Your task to perform on an android device: open app "HBO Max: Stream TV & Movies" (install if not already installed) Image 0: 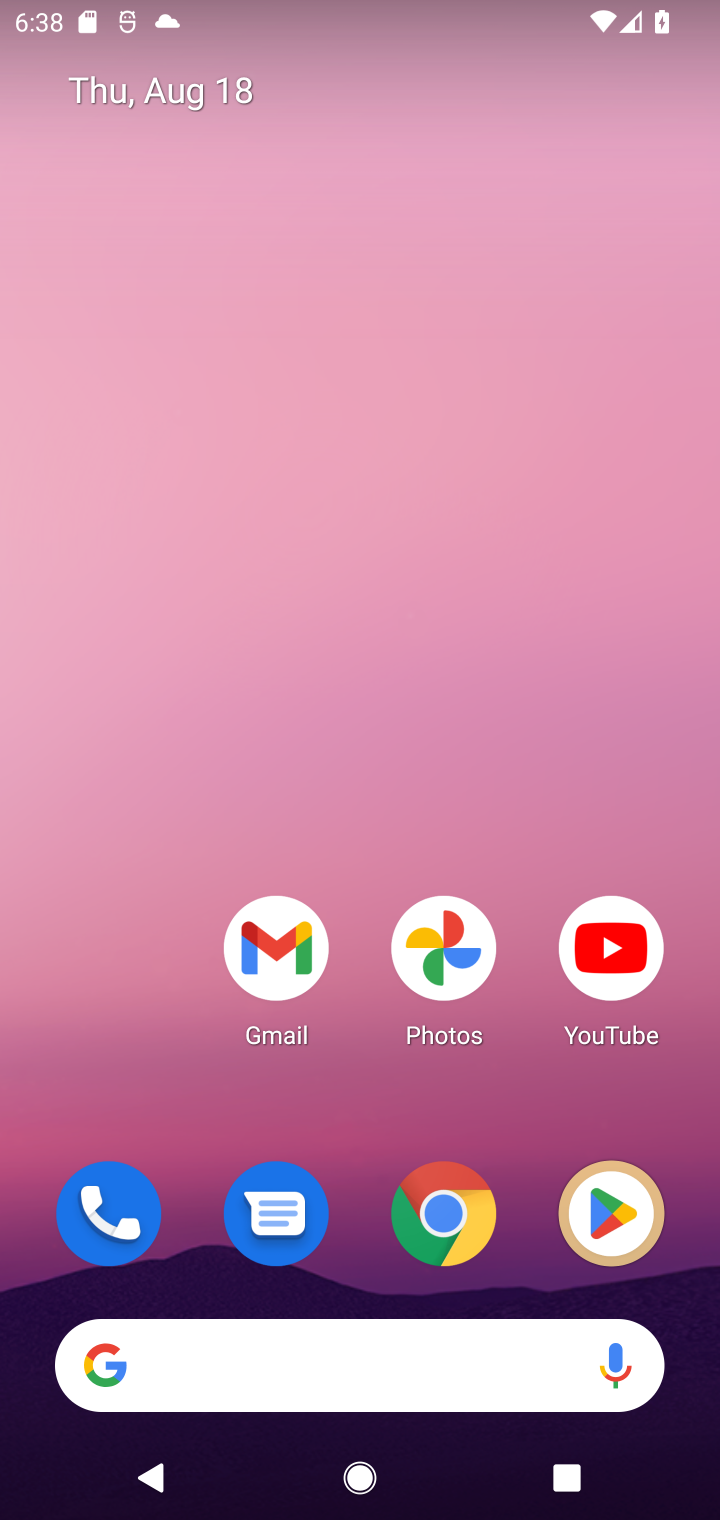
Step 0: press home button
Your task to perform on an android device: open app "HBO Max: Stream TV & Movies" (install if not already installed) Image 1: 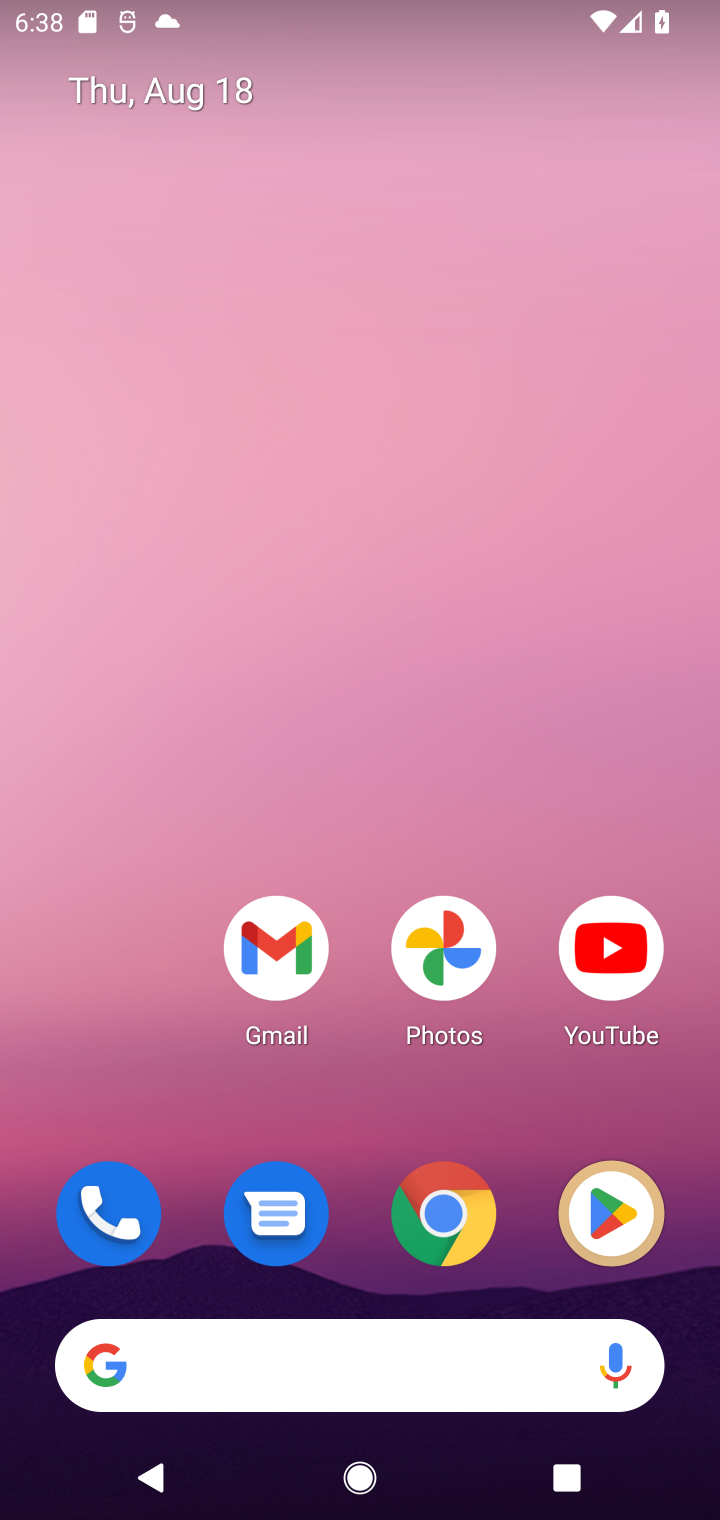
Step 1: drag from (347, 1153) to (389, 174)
Your task to perform on an android device: open app "HBO Max: Stream TV & Movies" (install if not already installed) Image 2: 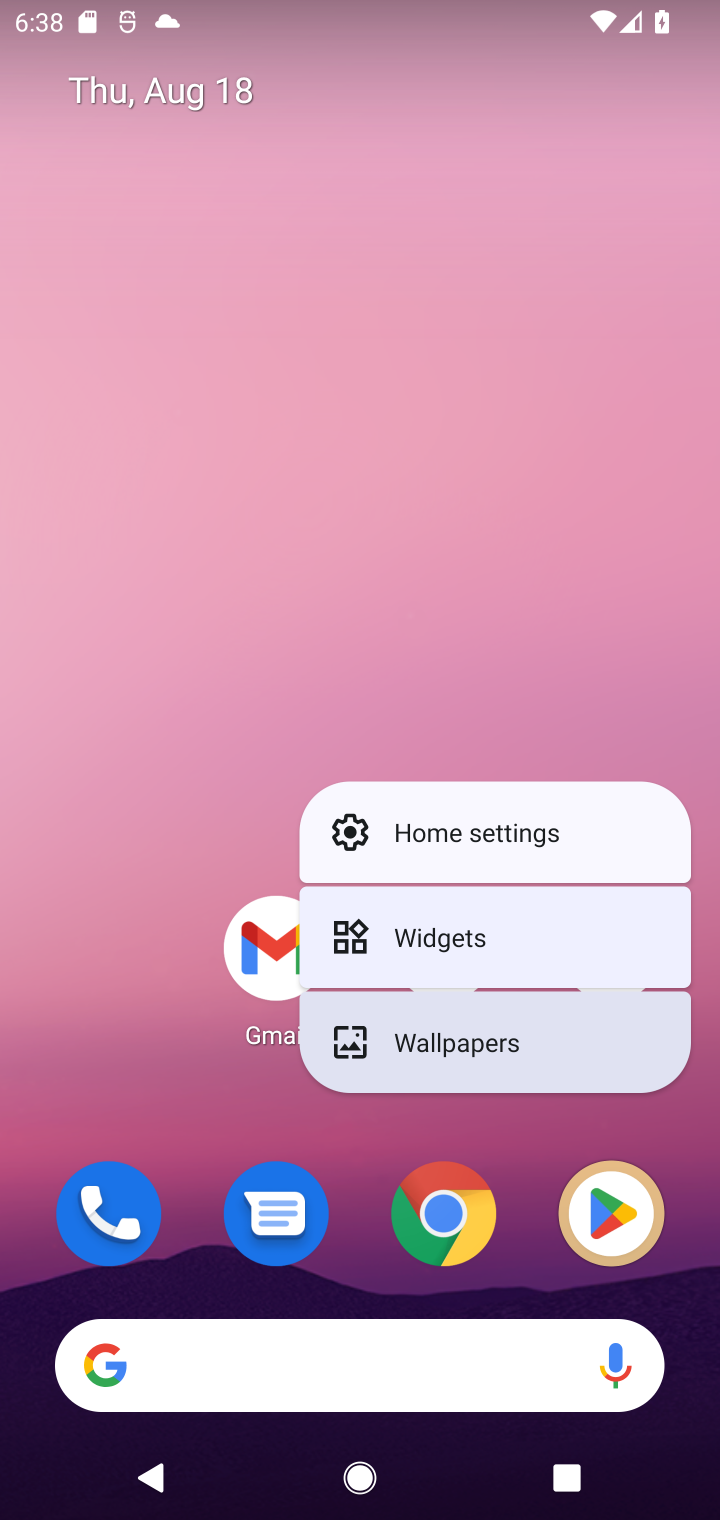
Step 2: drag from (17, 1075) to (295, 58)
Your task to perform on an android device: open app "HBO Max: Stream TV & Movies" (install if not already installed) Image 3: 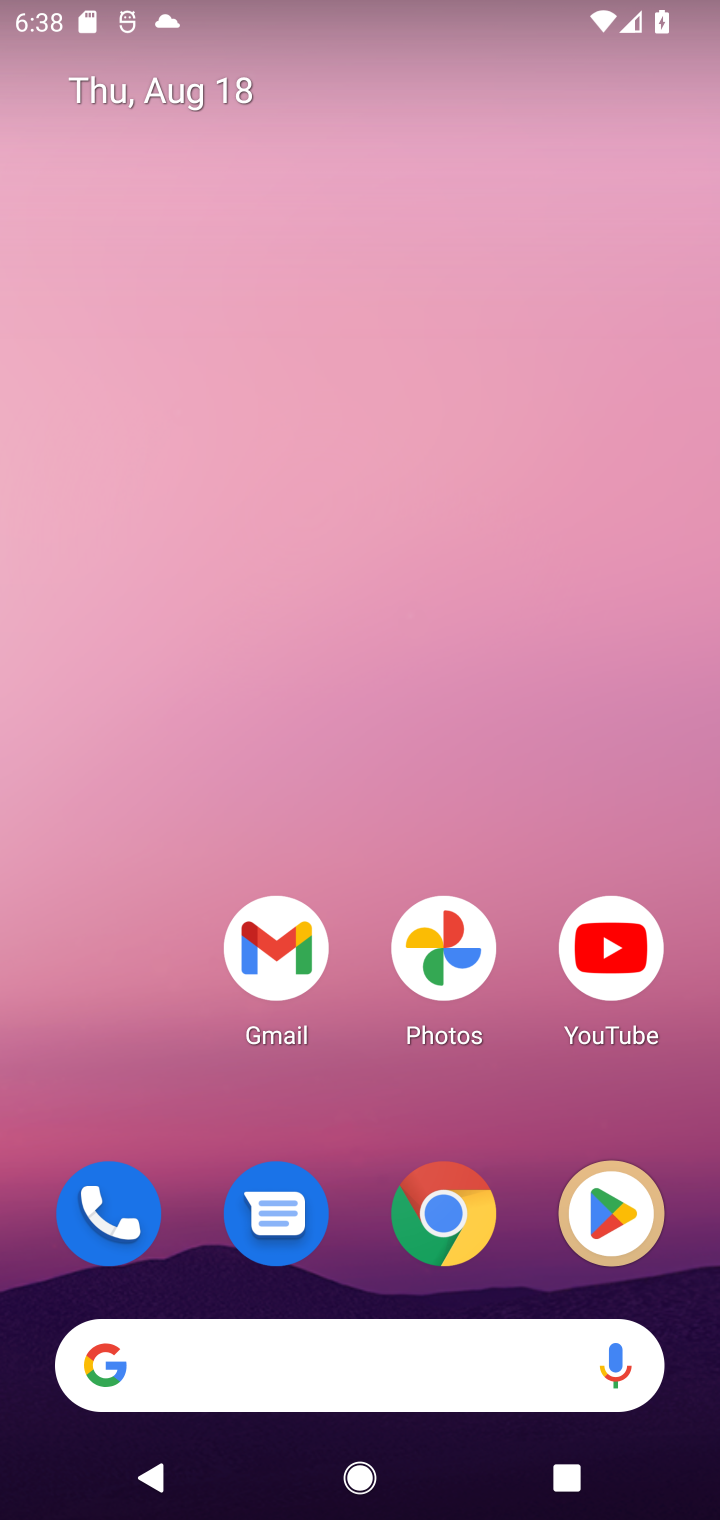
Step 3: drag from (369, 1148) to (382, 0)
Your task to perform on an android device: open app "HBO Max: Stream TV & Movies" (install if not already installed) Image 4: 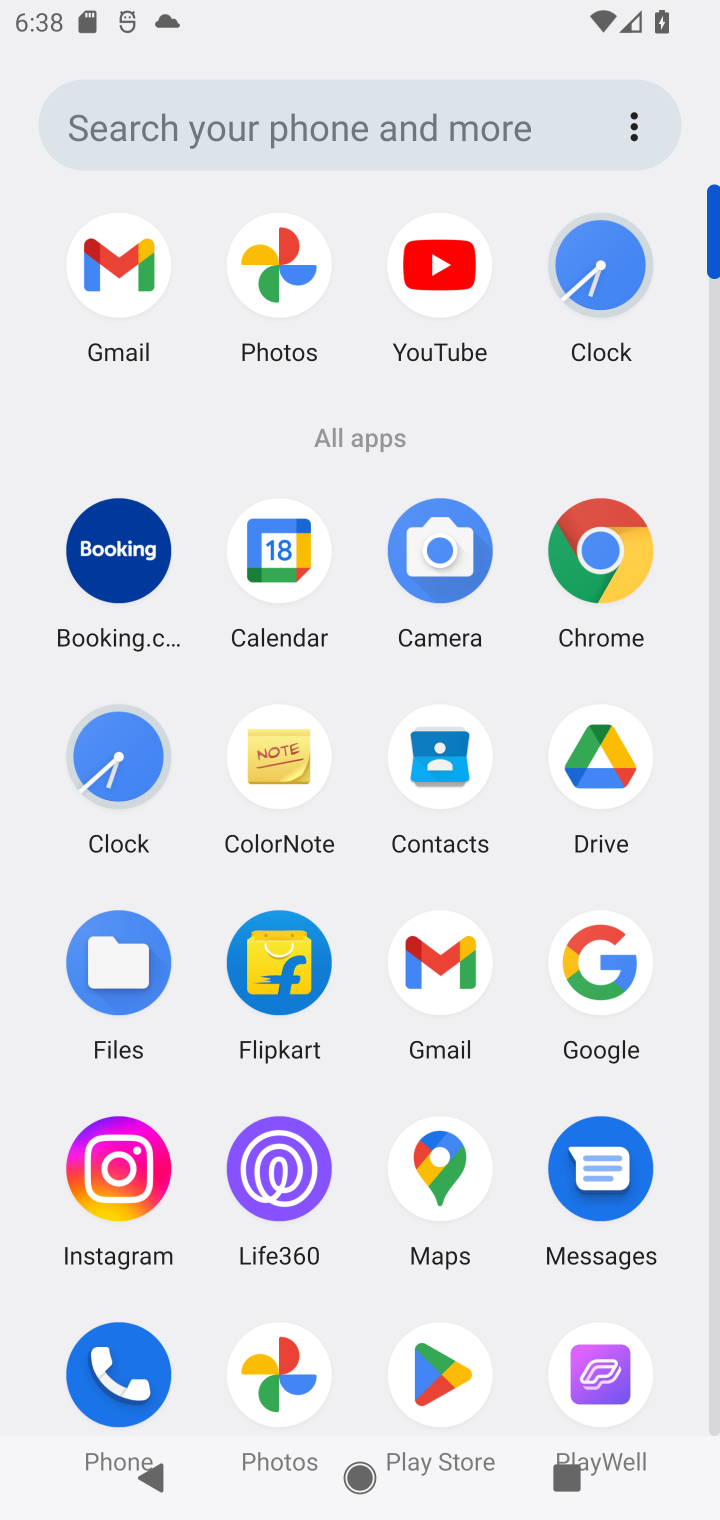
Step 4: click (401, 1363)
Your task to perform on an android device: open app "HBO Max: Stream TV & Movies" (install if not already installed) Image 5: 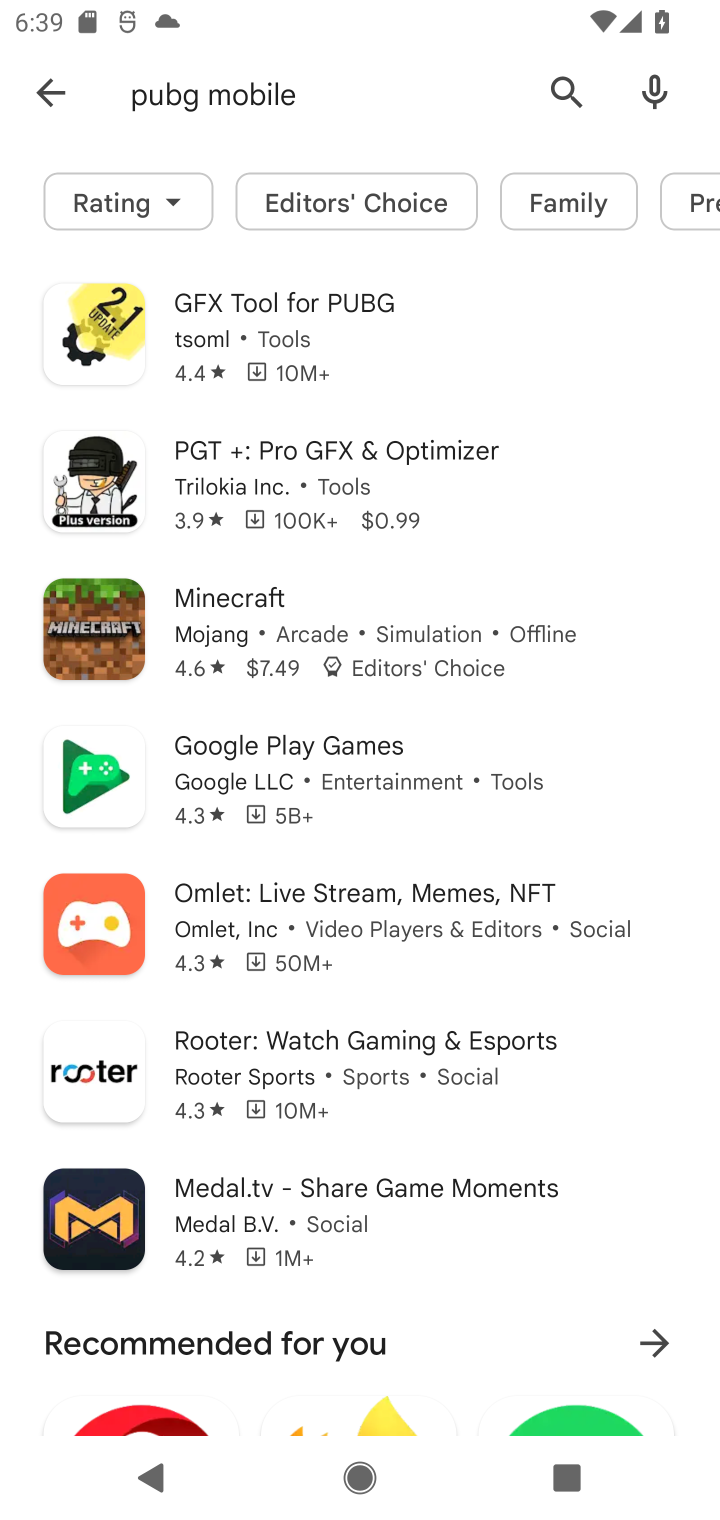
Step 5: click (550, 96)
Your task to perform on an android device: open app "HBO Max: Stream TV & Movies" (install if not already installed) Image 6: 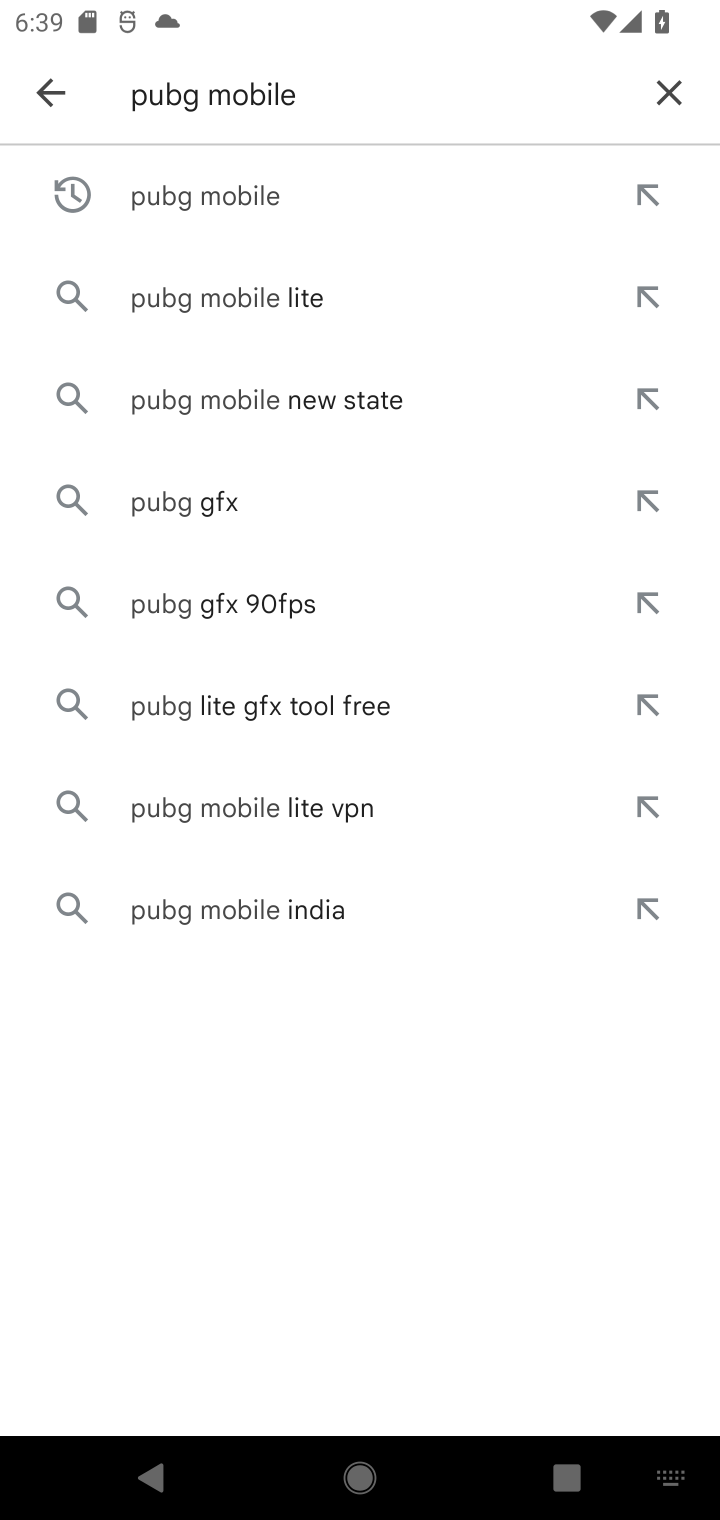
Step 6: click (660, 101)
Your task to perform on an android device: open app "HBO Max: Stream TV & Movies" (install if not already installed) Image 7: 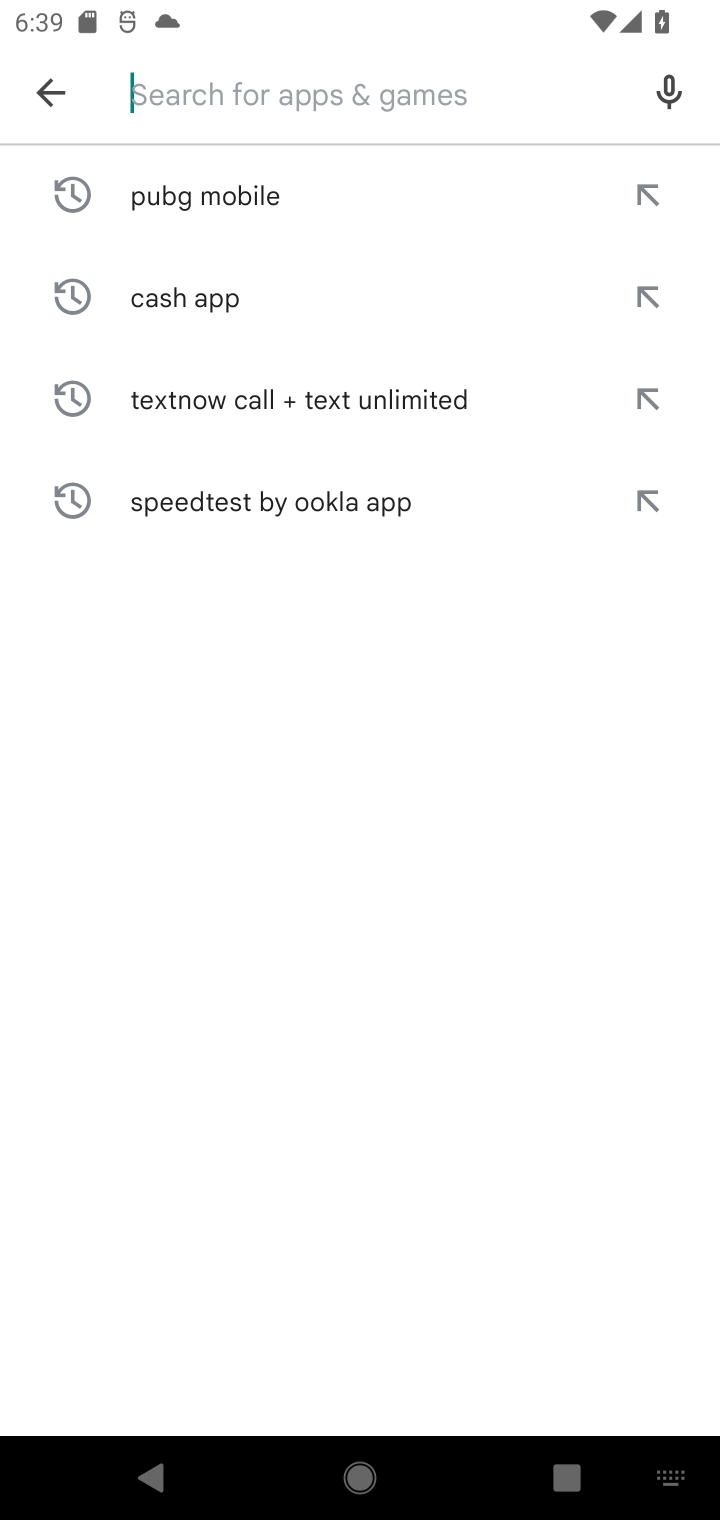
Step 7: type "HBO Max: Stream TV & Movies"
Your task to perform on an android device: open app "HBO Max: Stream TV & Movies" (install if not already installed) Image 8: 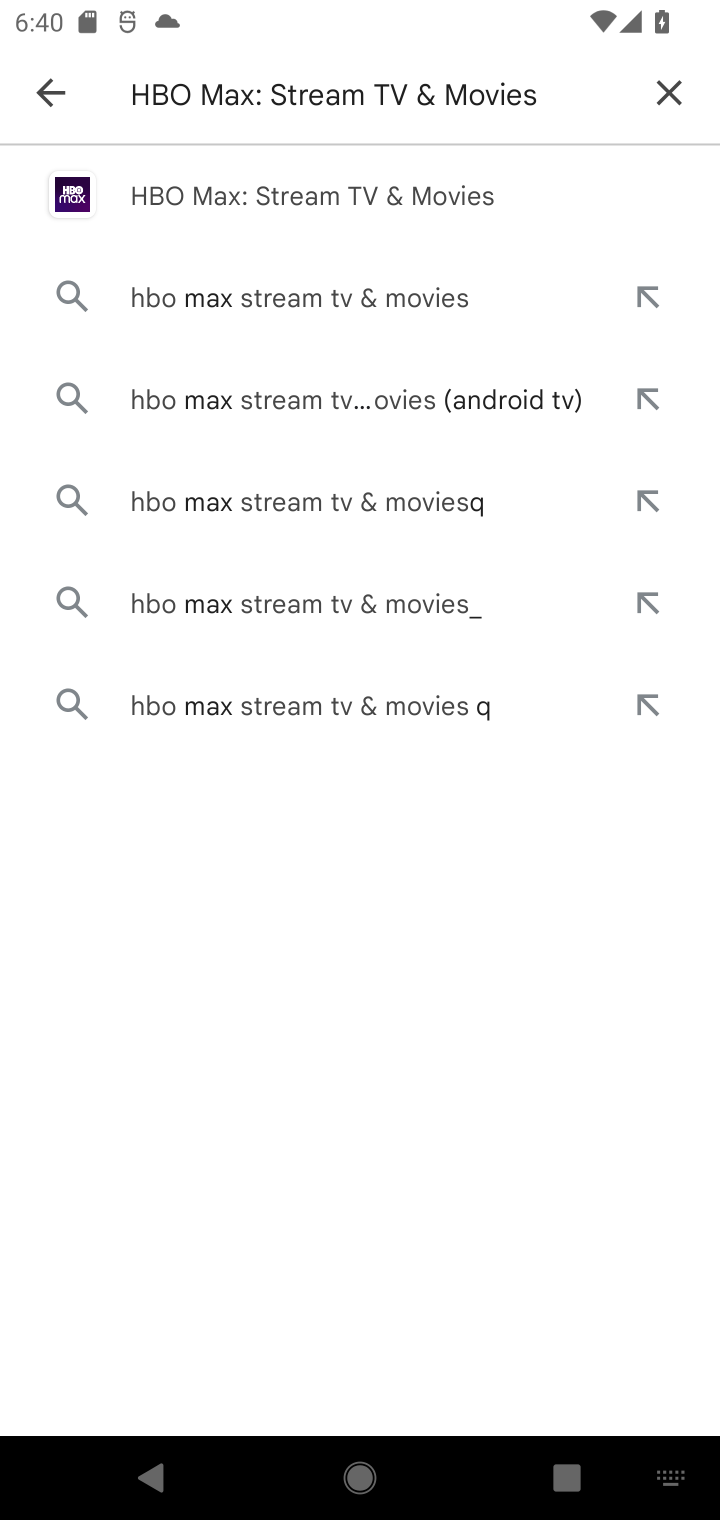
Step 8: click (157, 175)
Your task to perform on an android device: open app "HBO Max: Stream TV & Movies" (install if not already installed) Image 9: 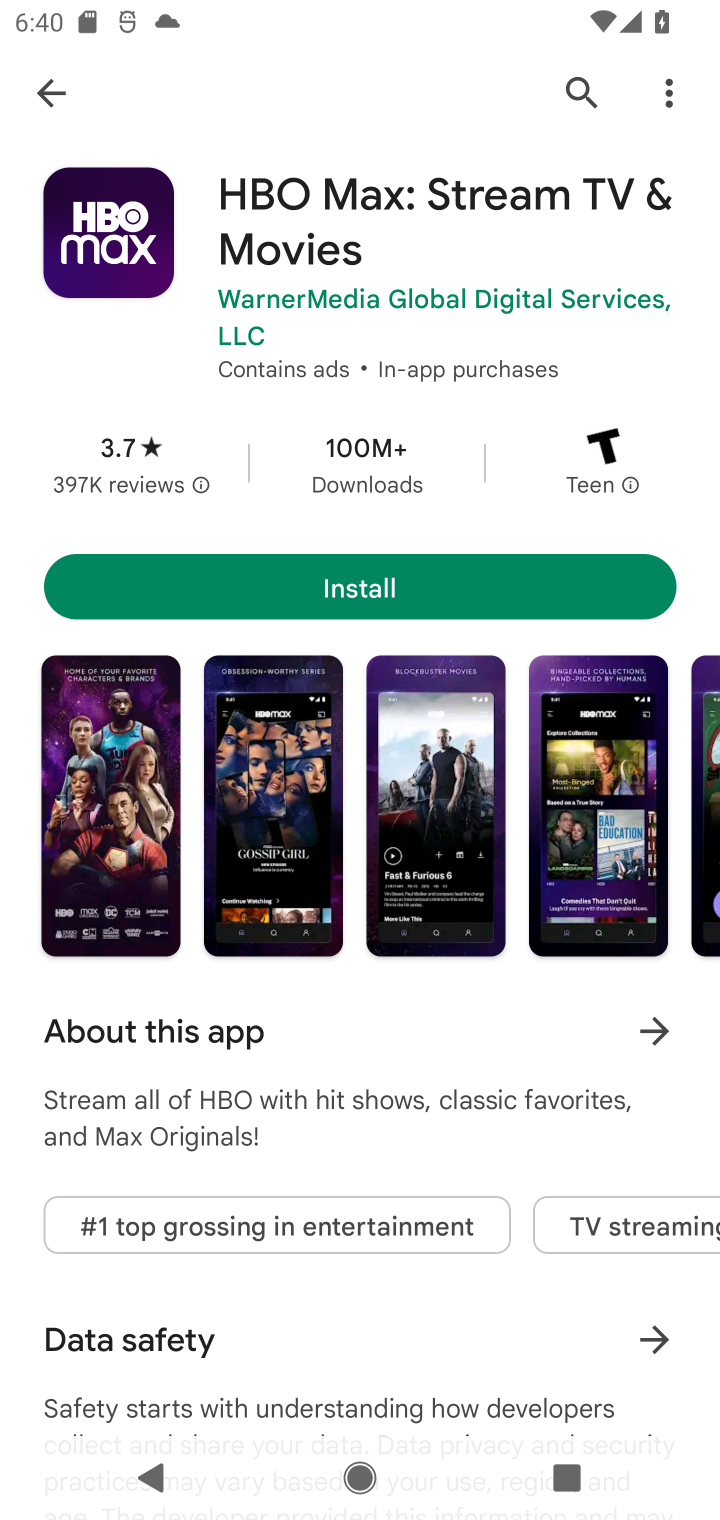
Step 9: click (378, 594)
Your task to perform on an android device: open app "HBO Max: Stream TV & Movies" (install if not already installed) Image 10: 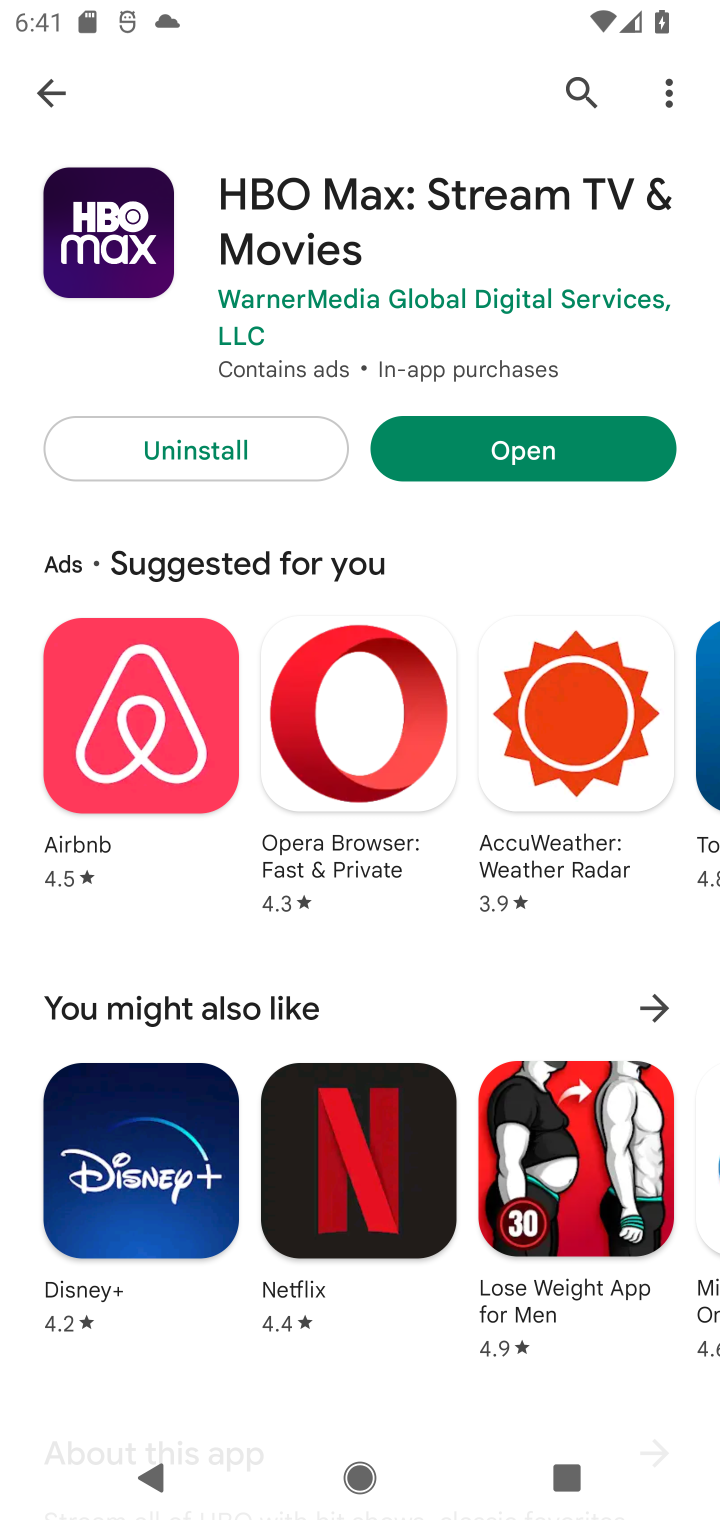
Step 10: click (572, 443)
Your task to perform on an android device: open app "HBO Max: Stream TV & Movies" (install if not already installed) Image 11: 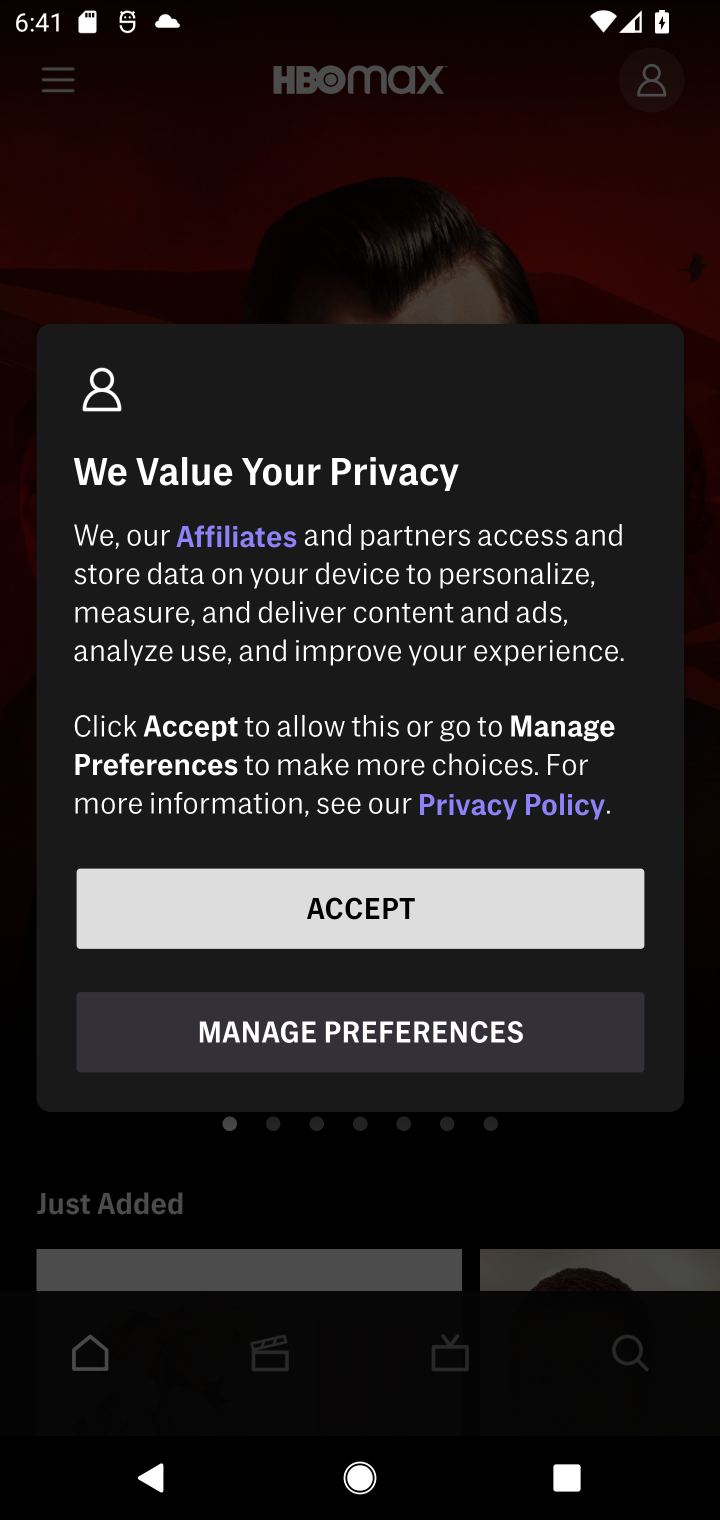
Step 11: task complete